Your task to perform on an android device: check out phone information Image 0: 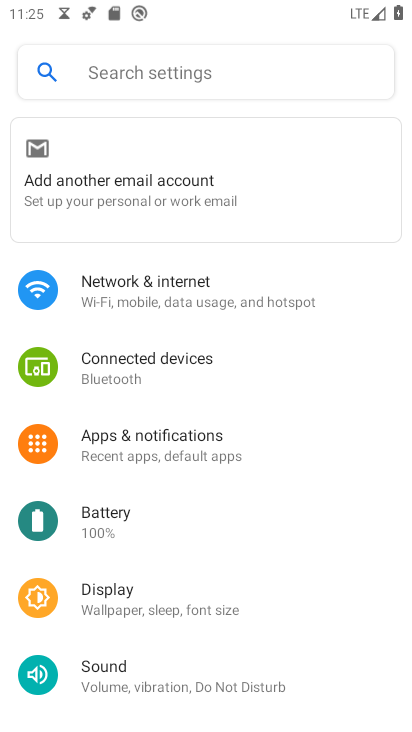
Step 0: drag from (244, 615) to (209, 216)
Your task to perform on an android device: check out phone information Image 1: 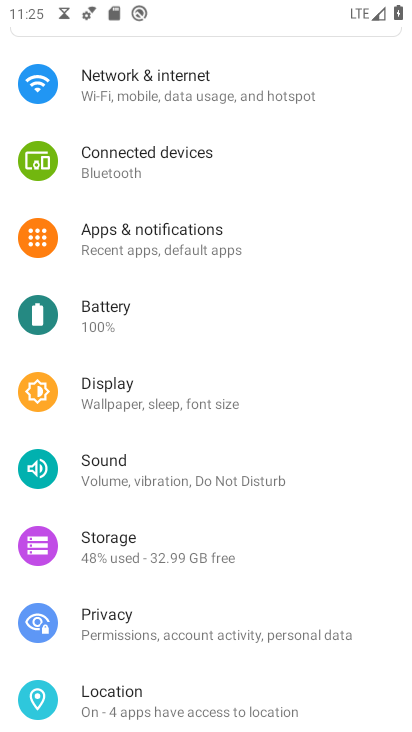
Step 1: drag from (203, 580) to (214, 143)
Your task to perform on an android device: check out phone information Image 2: 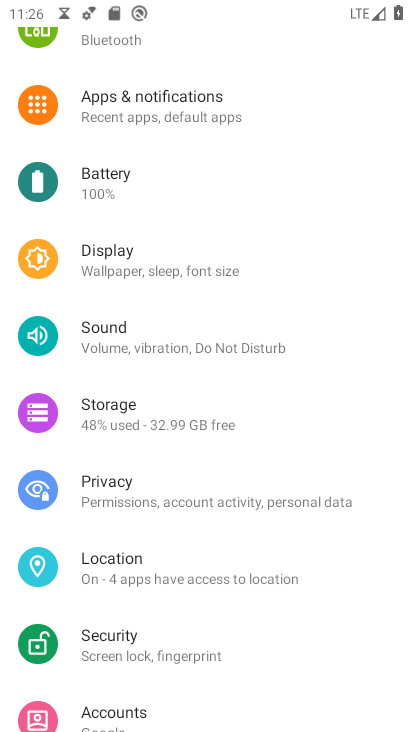
Step 2: drag from (233, 551) to (209, 107)
Your task to perform on an android device: check out phone information Image 3: 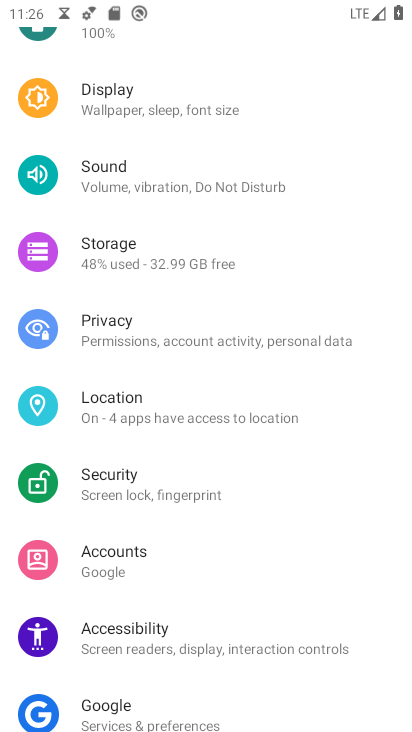
Step 3: drag from (225, 681) to (188, 141)
Your task to perform on an android device: check out phone information Image 4: 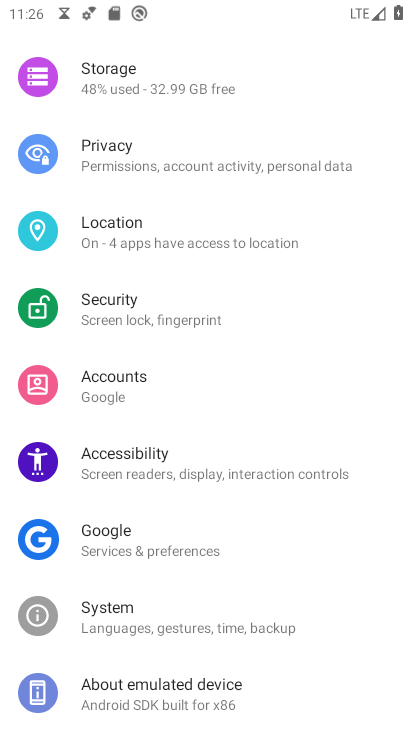
Step 4: click (201, 687)
Your task to perform on an android device: check out phone information Image 5: 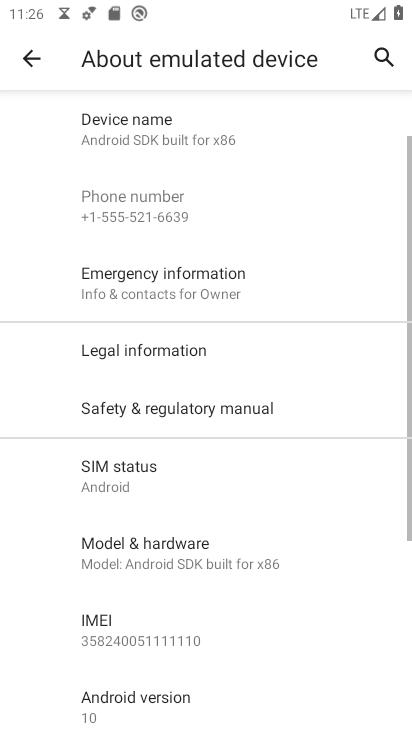
Step 5: task complete